Your task to perform on an android device: turn off data saver in the chrome app Image 0: 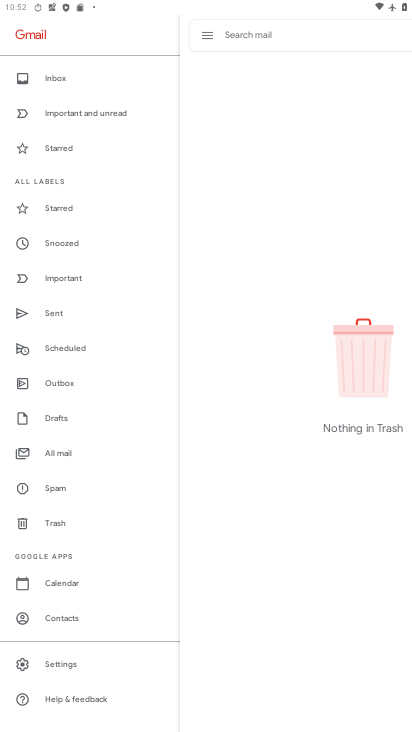
Step 0: press home button
Your task to perform on an android device: turn off data saver in the chrome app Image 1: 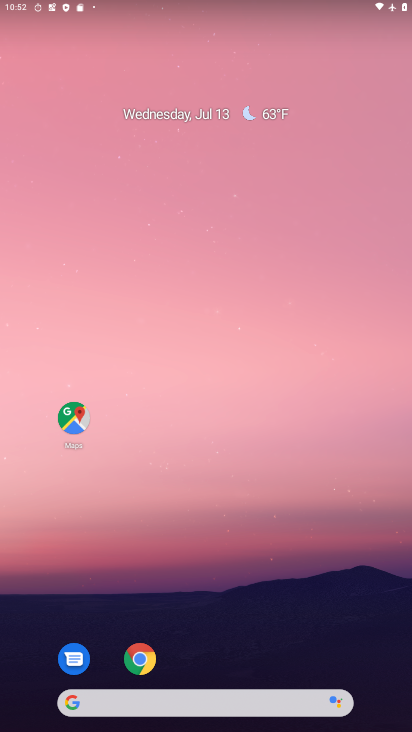
Step 1: drag from (343, 624) to (260, 46)
Your task to perform on an android device: turn off data saver in the chrome app Image 2: 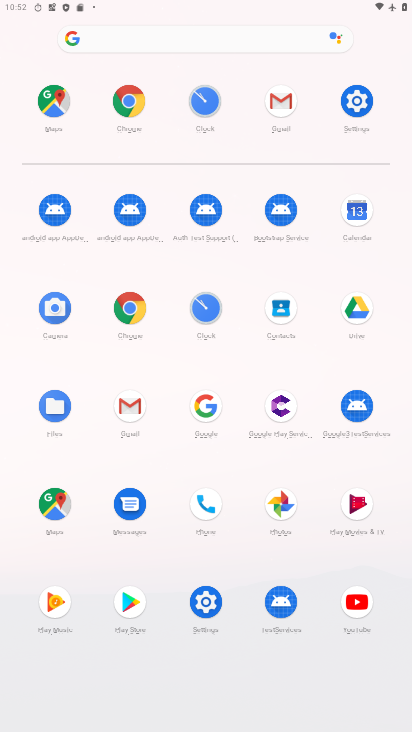
Step 2: click (131, 311)
Your task to perform on an android device: turn off data saver in the chrome app Image 3: 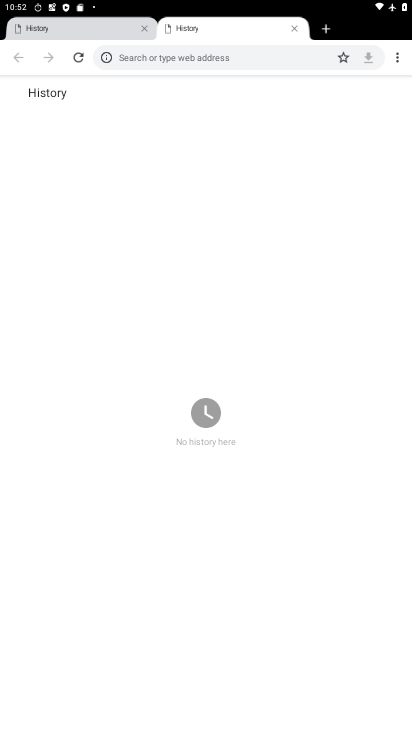
Step 3: drag from (393, 55) to (288, 263)
Your task to perform on an android device: turn off data saver in the chrome app Image 4: 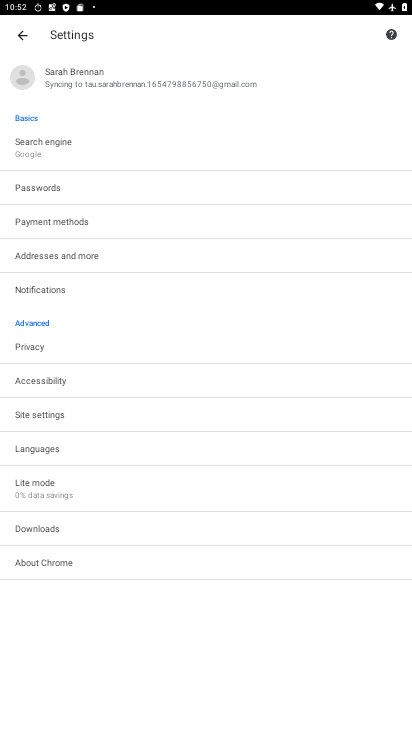
Step 4: click (40, 496)
Your task to perform on an android device: turn off data saver in the chrome app Image 5: 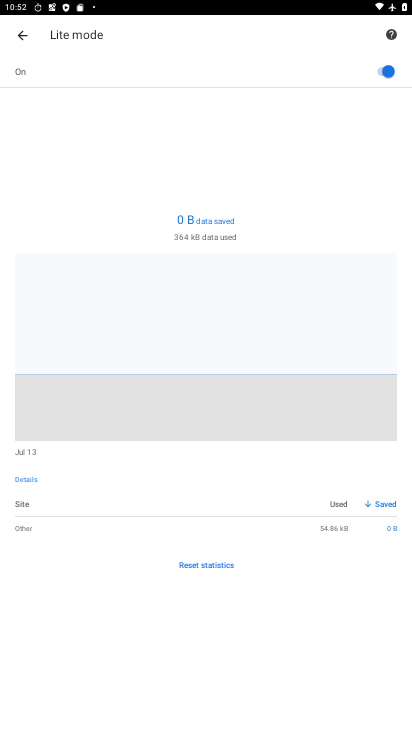
Step 5: click (391, 80)
Your task to perform on an android device: turn off data saver in the chrome app Image 6: 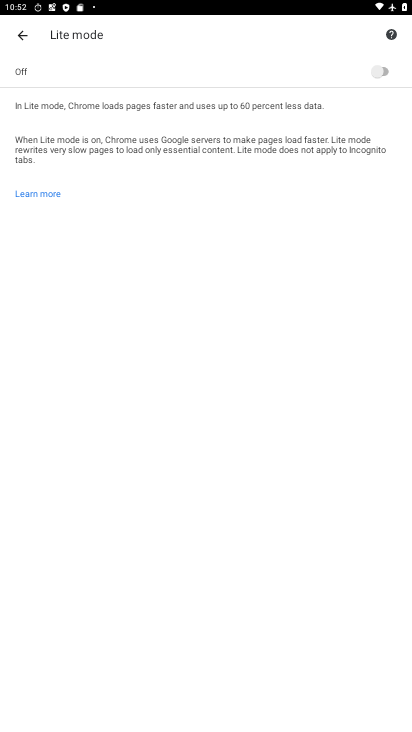
Step 6: task complete